Your task to perform on an android device: toggle data saver in the chrome app Image 0: 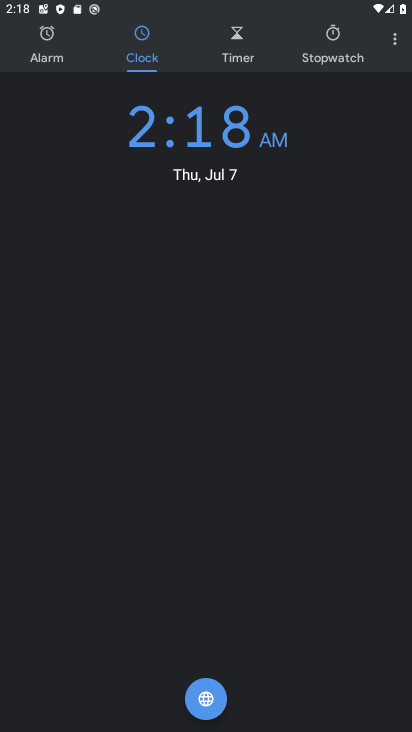
Step 0: press home button
Your task to perform on an android device: toggle data saver in the chrome app Image 1: 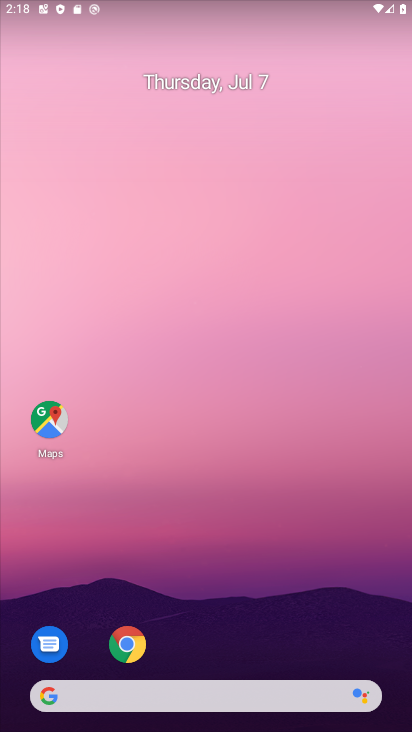
Step 1: drag from (253, 605) to (210, 109)
Your task to perform on an android device: toggle data saver in the chrome app Image 2: 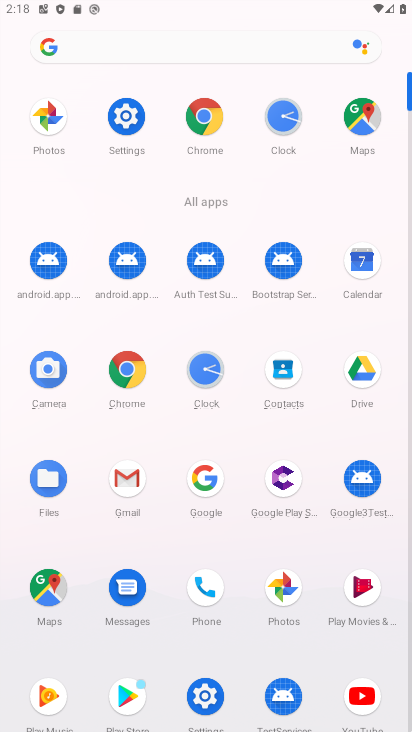
Step 2: click (201, 117)
Your task to perform on an android device: toggle data saver in the chrome app Image 3: 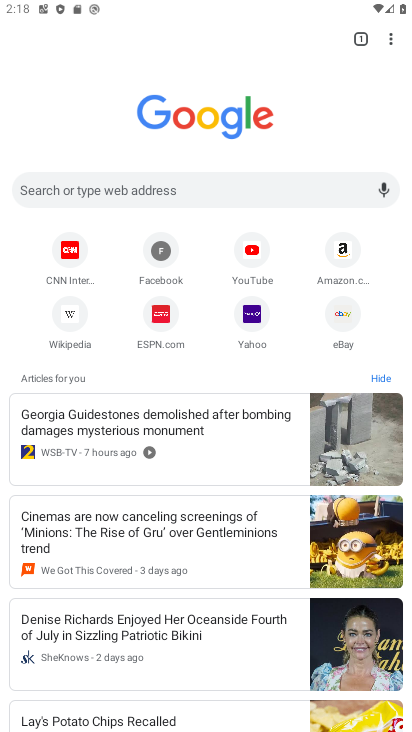
Step 3: drag from (388, 35) to (257, 324)
Your task to perform on an android device: toggle data saver in the chrome app Image 4: 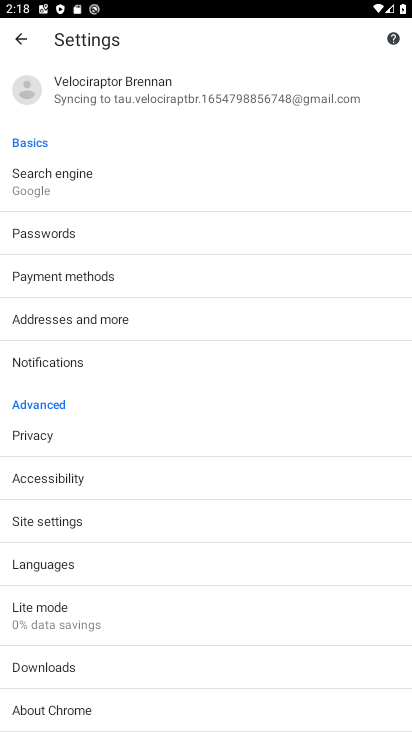
Step 4: click (34, 614)
Your task to perform on an android device: toggle data saver in the chrome app Image 5: 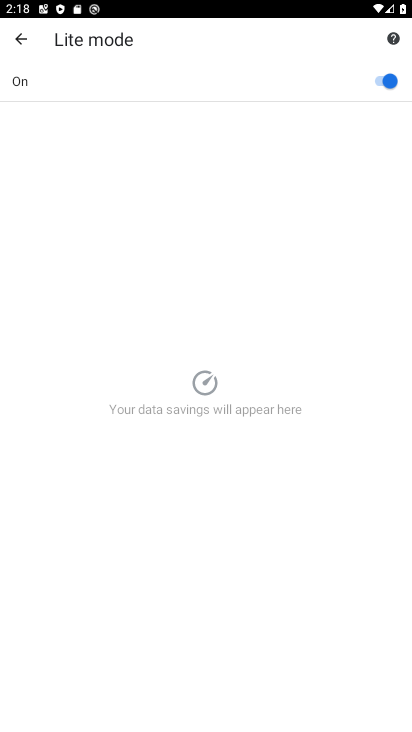
Step 5: click (386, 77)
Your task to perform on an android device: toggle data saver in the chrome app Image 6: 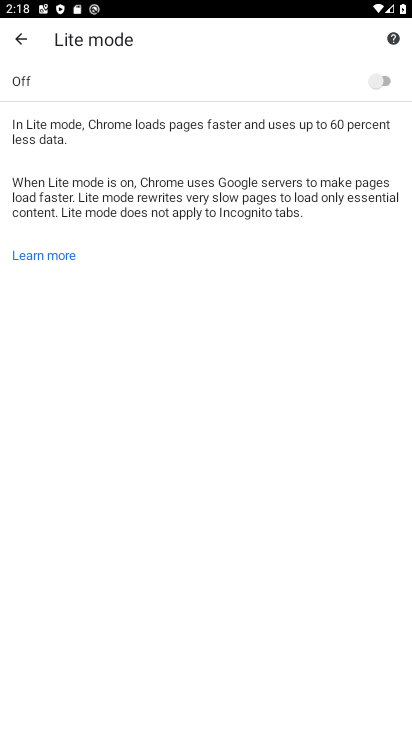
Step 6: task complete